Your task to perform on an android device: turn off picture-in-picture Image 0: 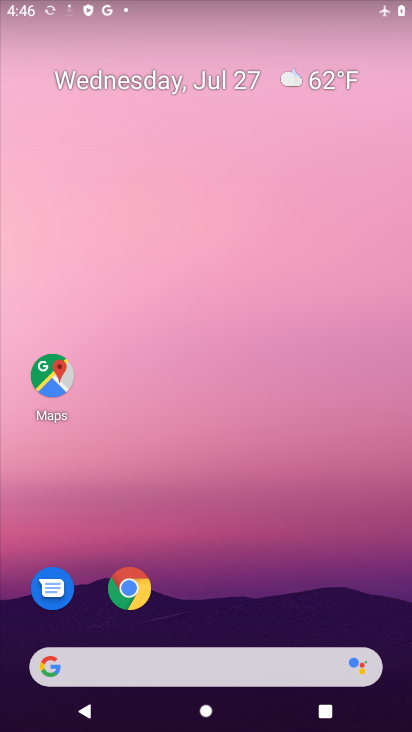
Step 0: drag from (176, 345) to (176, 251)
Your task to perform on an android device: turn off picture-in-picture Image 1: 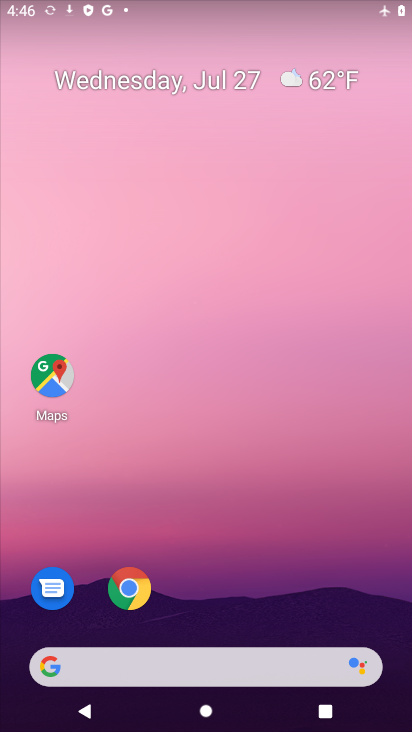
Step 1: drag from (192, 464) to (189, 201)
Your task to perform on an android device: turn off picture-in-picture Image 2: 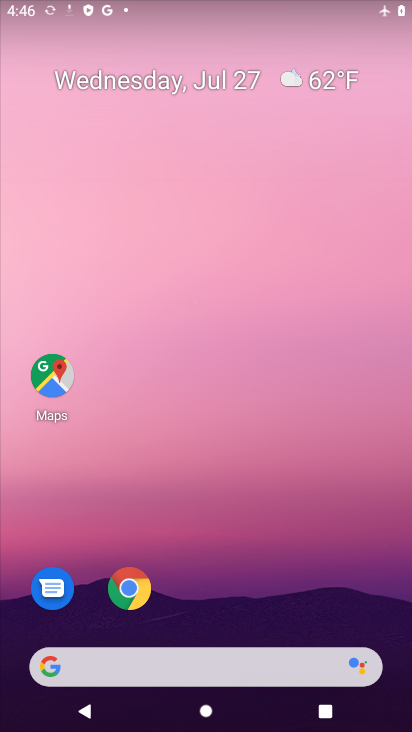
Step 2: drag from (203, 385) to (203, 68)
Your task to perform on an android device: turn off picture-in-picture Image 3: 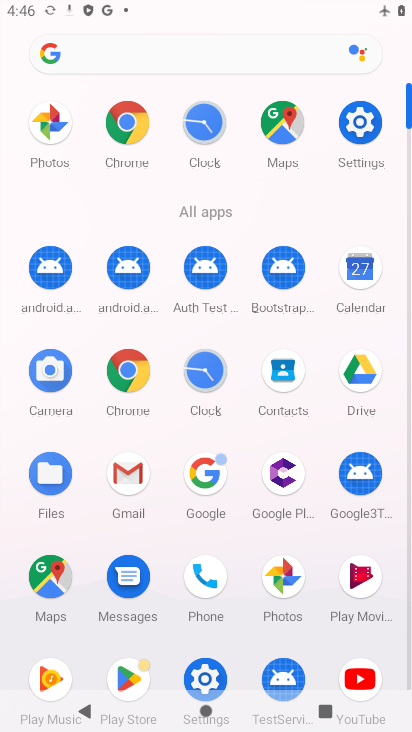
Step 3: click (369, 135)
Your task to perform on an android device: turn off picture-in-picture Image 4: 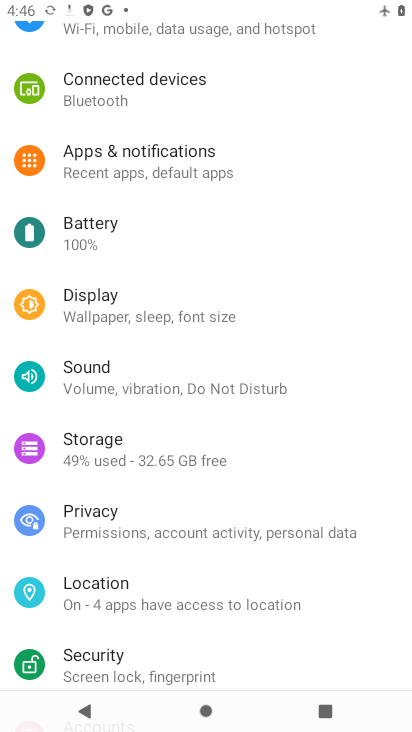
Step 4: click (131, 171)
Your task to perform on an android device: turn off picture-in-picture Image 5: 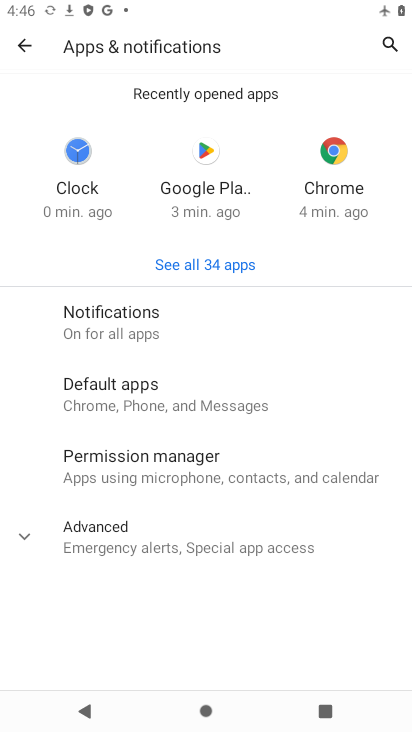
Step 5: click (103, 554)
Your task to perform on an android device: turn off picture-in-picture Image 6: 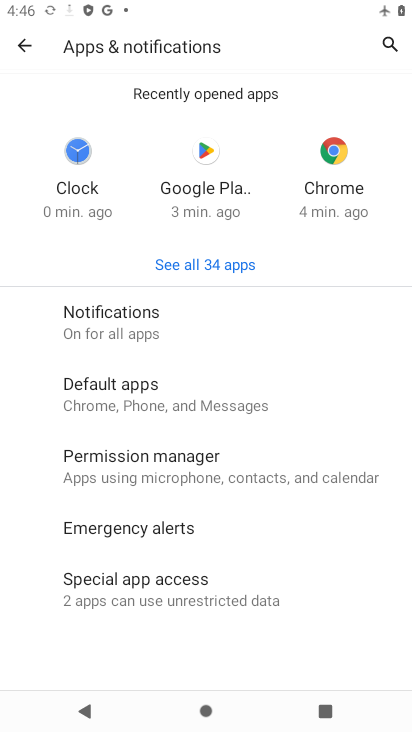
Step 6: click (89, 607)
Your task to perform on an android device: turn off picture-in-picture Image 7: 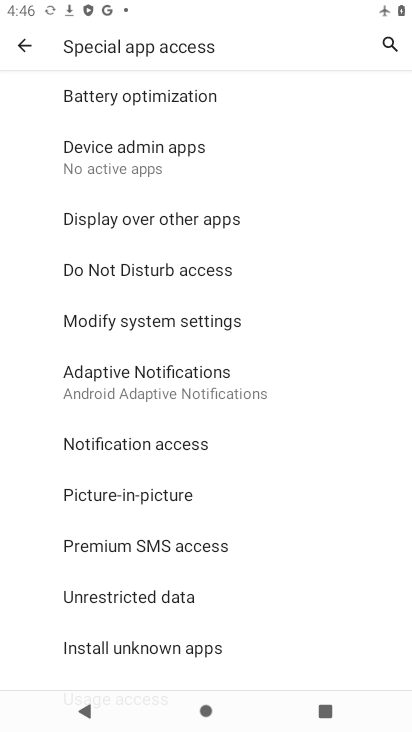
Step 7: click (148, 494)
Your task to perform on an android device: turn off picture-in-picture Image 8: 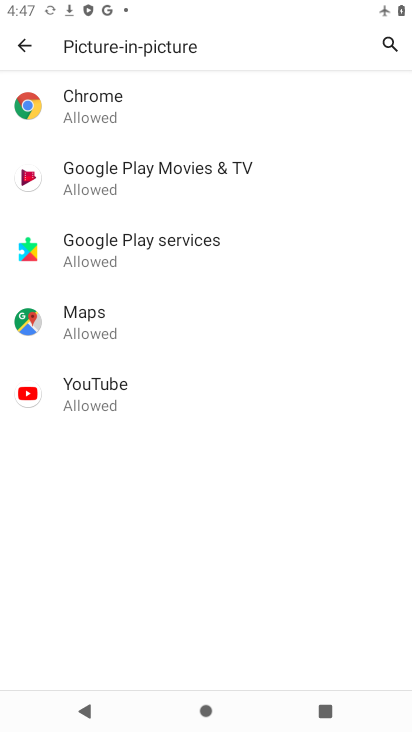
Step 8: click (99, 107)
Your task to perform on an android device: turn off picture-in-picture Image 9: 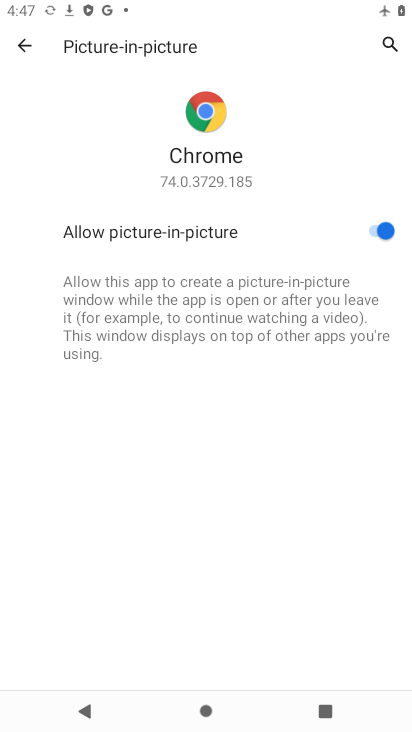
Step 9: click (377, 226)
Your task to perform on an android device: turn off picture-in-picture Image 10: 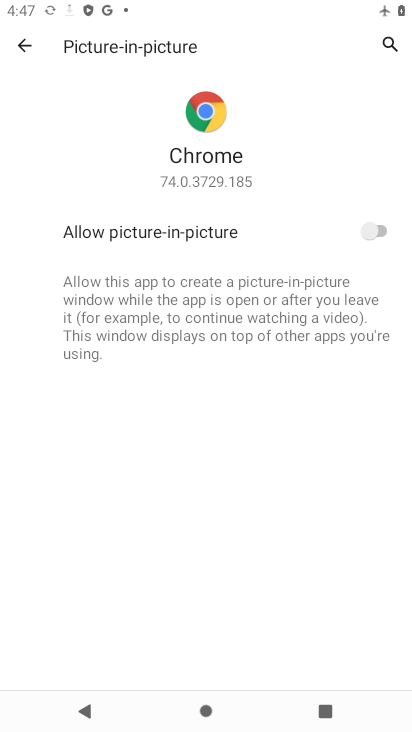
Step 10: task complete